Your task to perform on an android device: toggle notification dots Image 0: 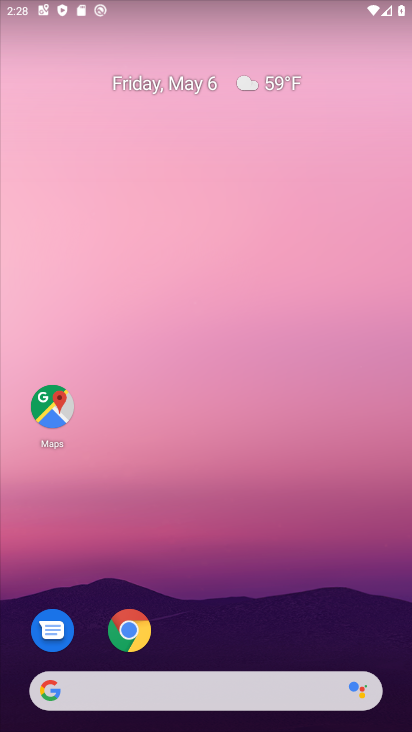
Step 0: drag from (214, 640) to (178, 206)
Your task to perform on an android device: toggle notification dots Image 1: 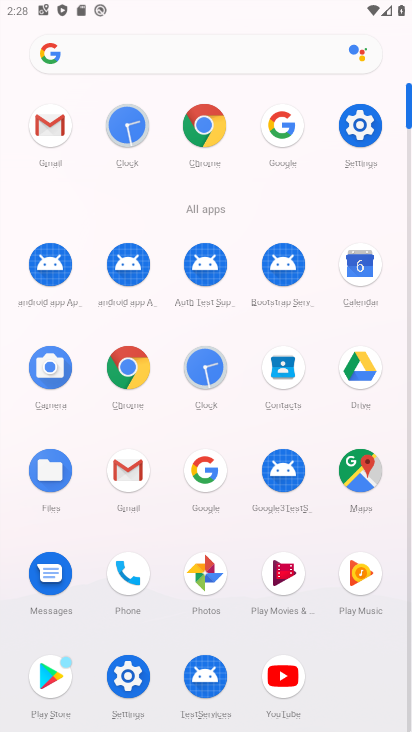
Step 1: click (356, 139)
Your task to perform on an android device: toggle notification dots Image 2: 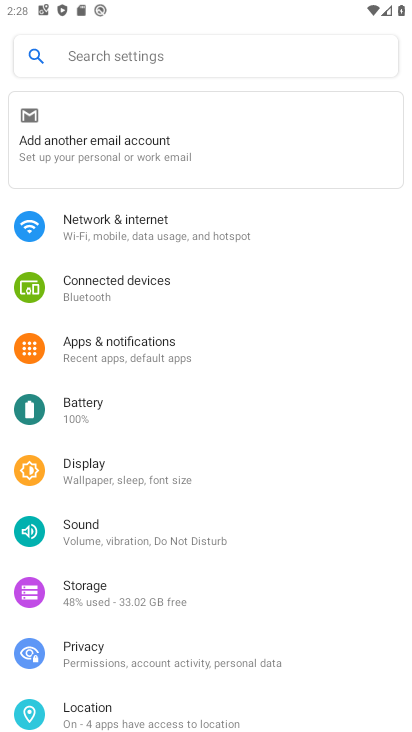
Step 2: click (204, 347)
Your task to perform on an android device: toggle notification dots Image 3: 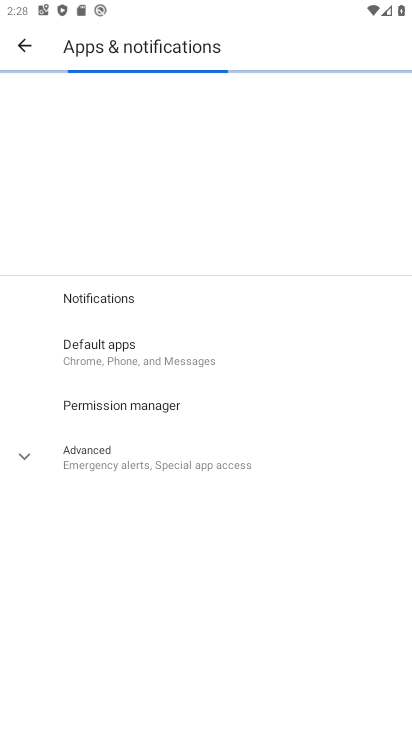
Step 3: click (177, 350)
Your task to perform on an android device: toggle notification dots Image 4: 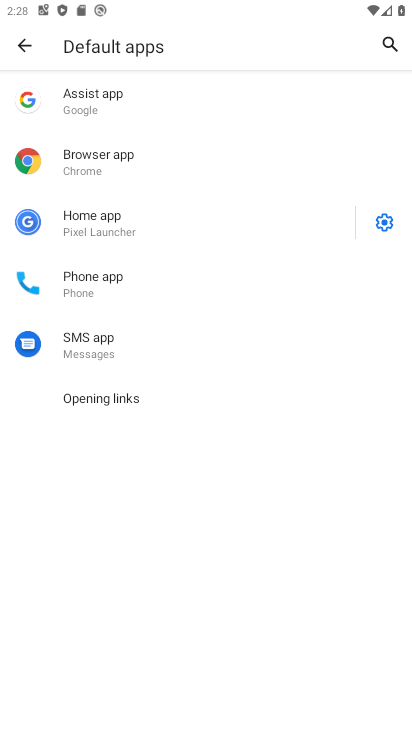
Step 4: click (24, 43)
Your task to perform on an android device: toggle notification dots Image 5: 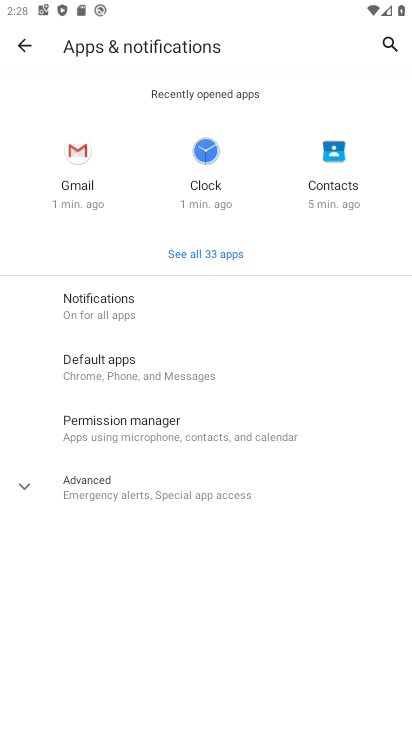
Step 5: click (152, 318)
Your task to perform on an android device: toggle notification dots Image 6: 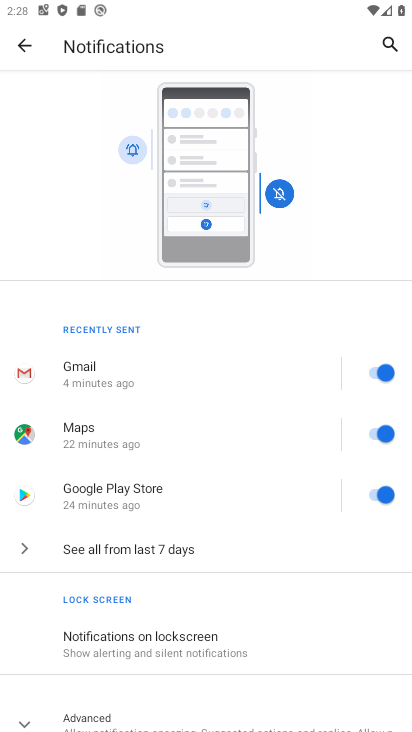
Step 6: click (186, 704)
Your task to perform on an android device: toggle notification dots Image 7: 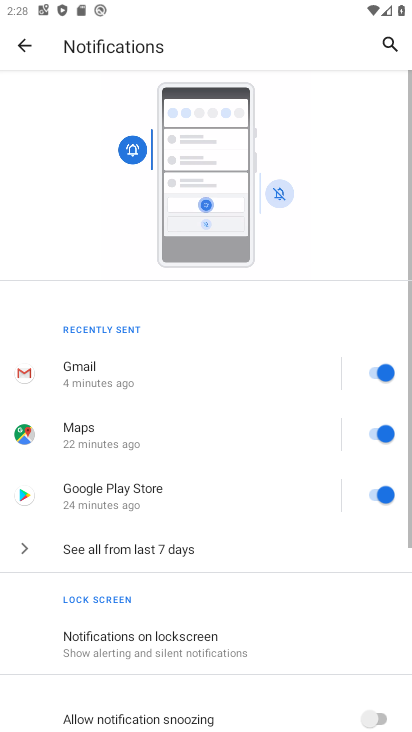
Step 7: drag from (214, 668) to (271, 347)
Your task to perform on an android device: toggle notification dots Image 8: 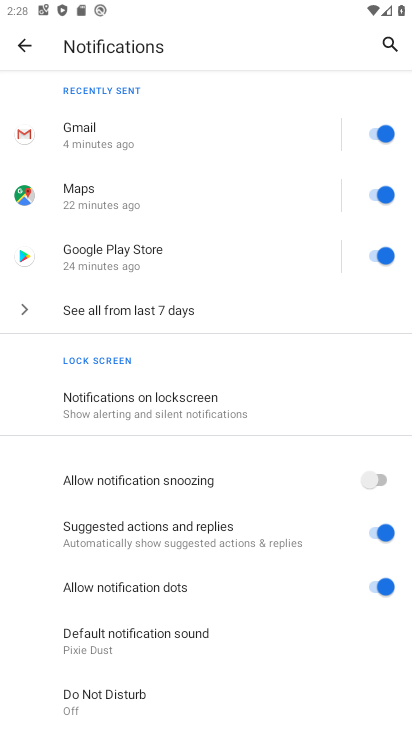
Step 8: click (375, 573)
Your task to perform on an android device: toggle notification dots Image 9: 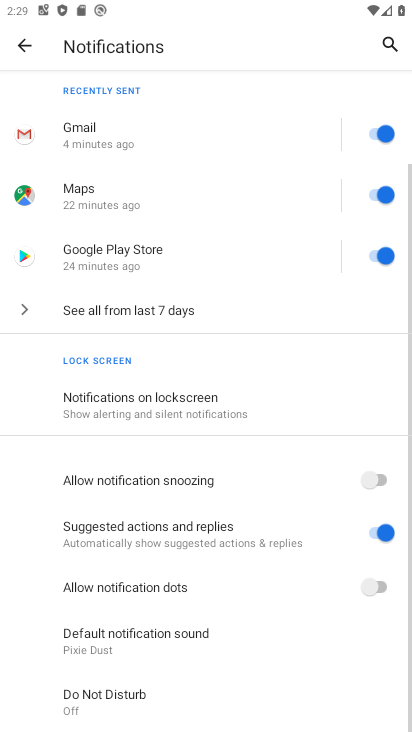
Step 9: task complete